Your task to perform on an android device: install app "Indeed Job Search" Image 0: 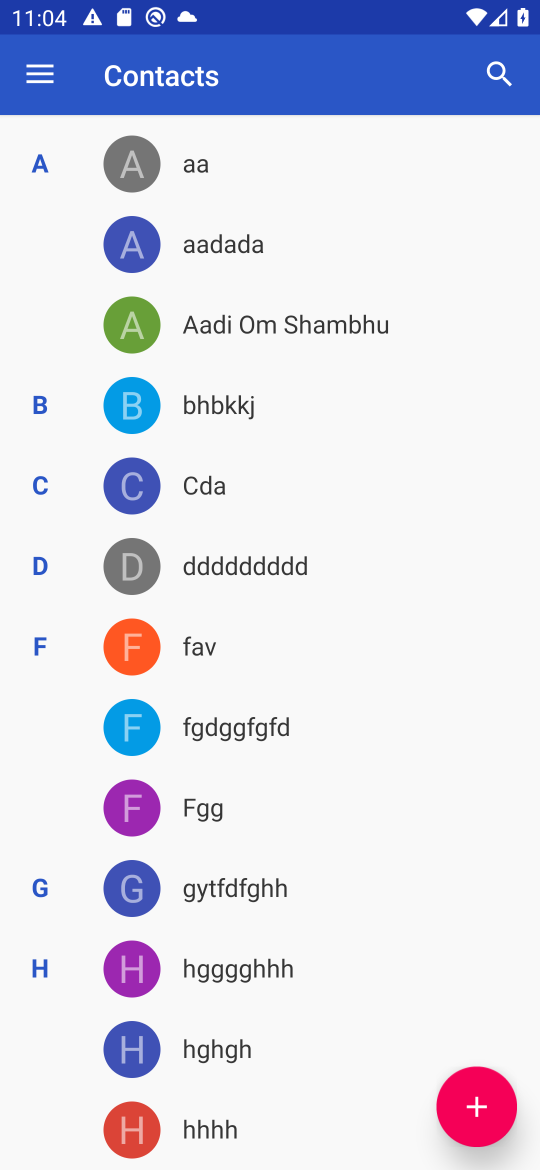
Step 0: press home button
Your task to perform on an android device: install app "Indeed Job Search" Image 1: 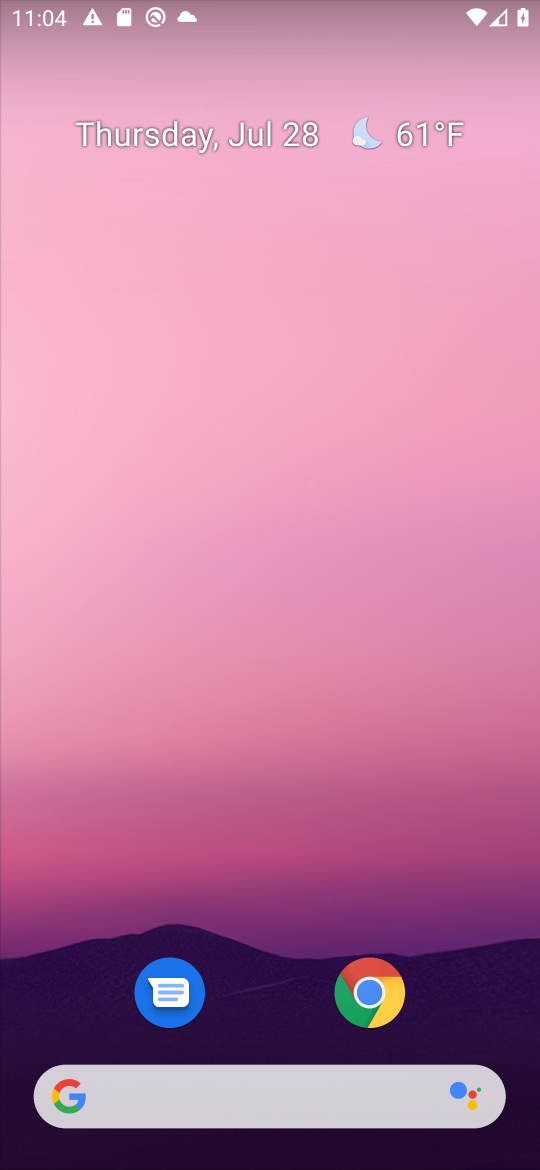
Step 1: drag from (255, 1101) to (285, 284)
Your task to perform on an android device: install app "Indeed Job Search" Image 2: 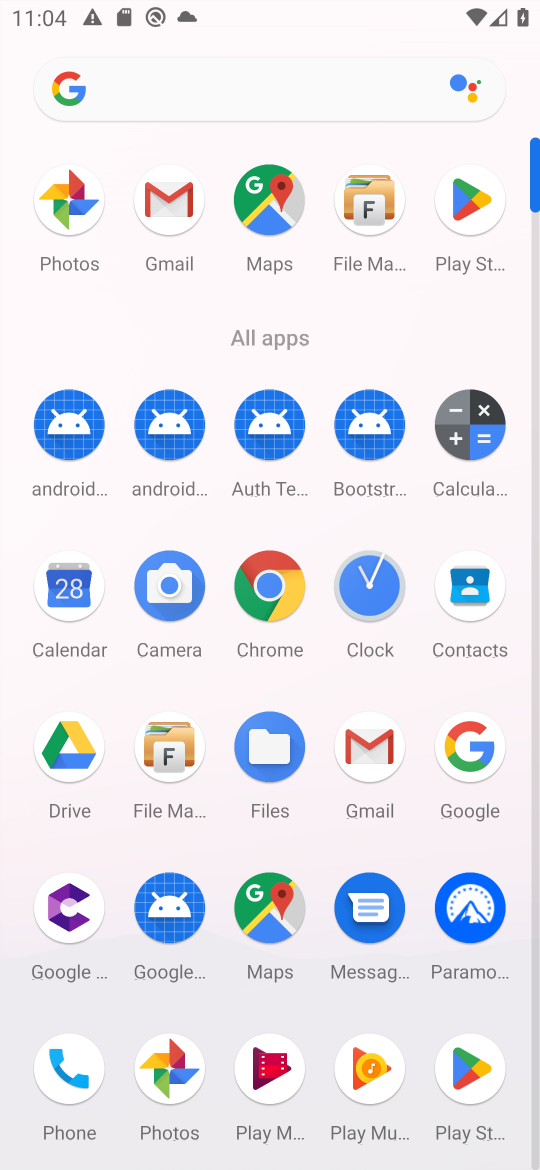
Step 2: click (461, 209)
Your task to perform on an android device: install app "Indeed Job Search" Image 3: 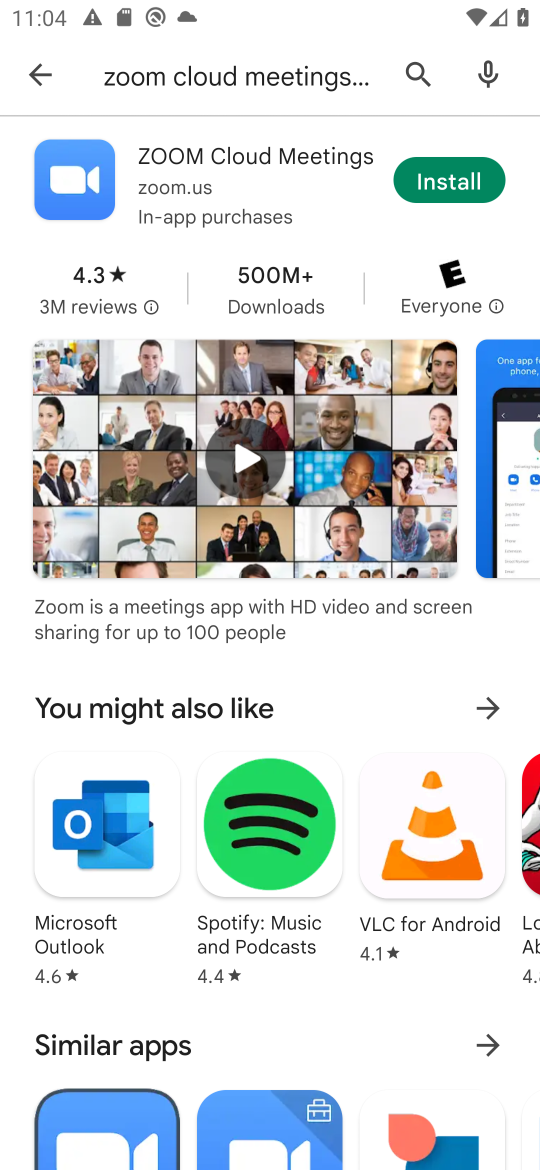
Step 3: click (415, 78)
Your task to perform on an android device: install app "Indeed Job Search" Image 4: 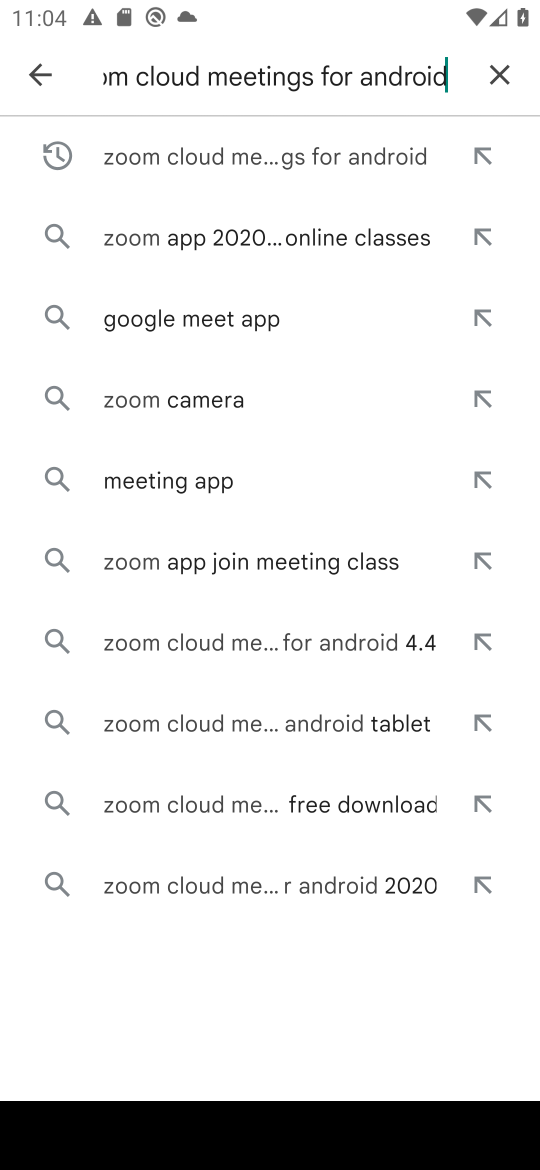
Step 4: click (503, 75)
Your task to perform on an android device: install app "Indeed Job Search" Image 5: 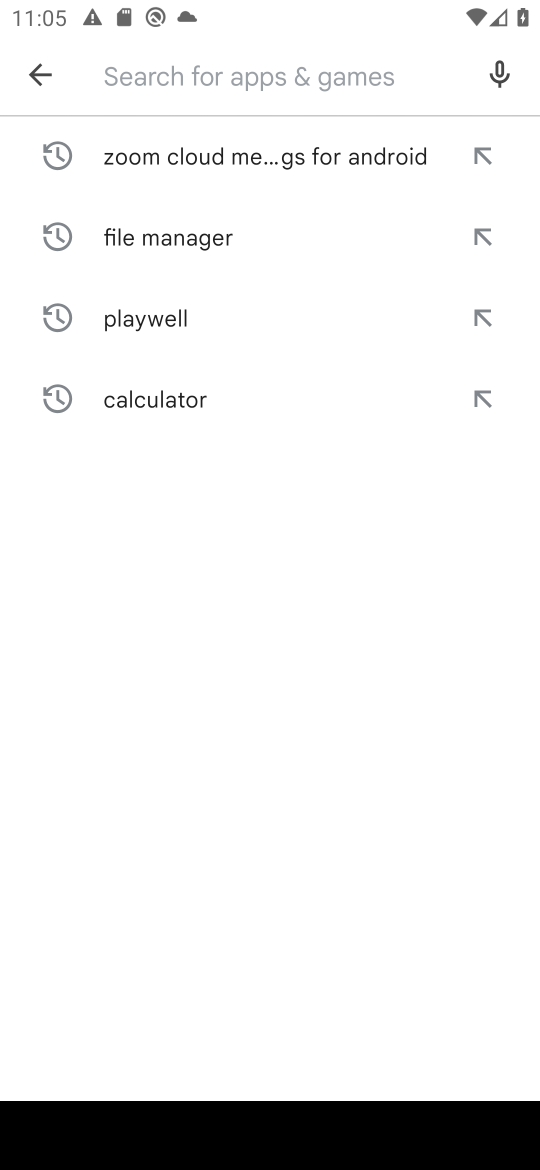
Step 5: type "Indeed Job Search"
Your task to perform on an android device: install app "Indeed Job Search" Image 6: 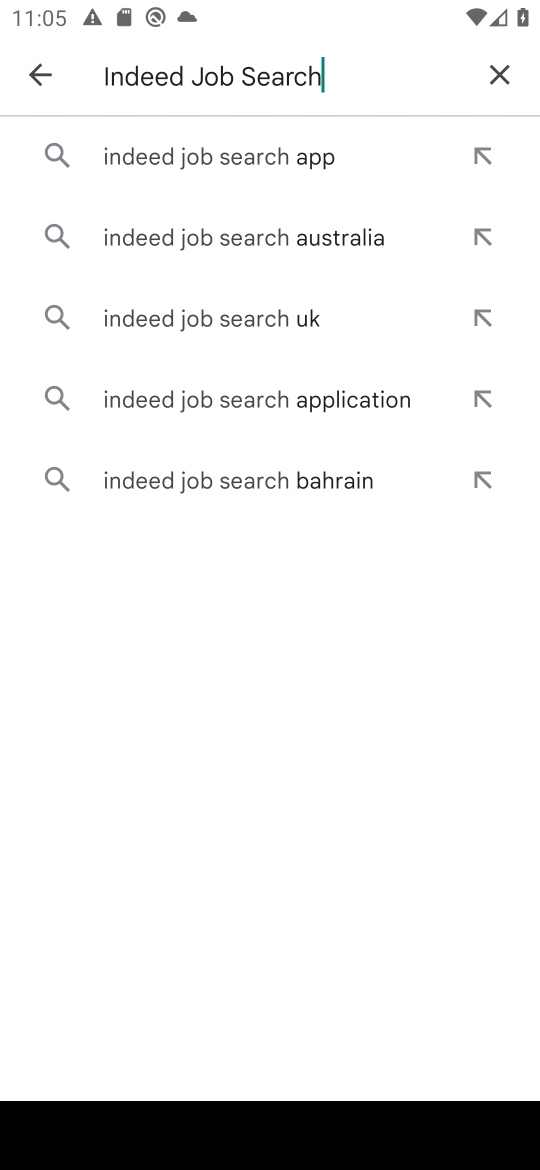
Step 6: click (274, 148)
Your task to perform on an android device: install app "Indeed Job Search" Image 7: 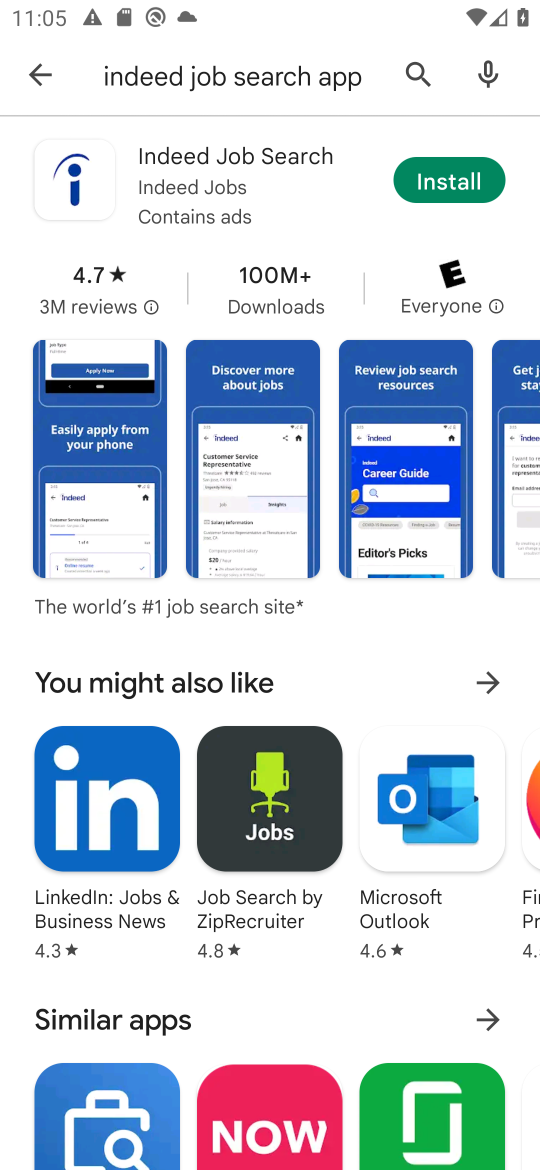
Step 7: click (447, 190)
Your task to perform on an android device: install app "Indeed Job Search" Image 8: 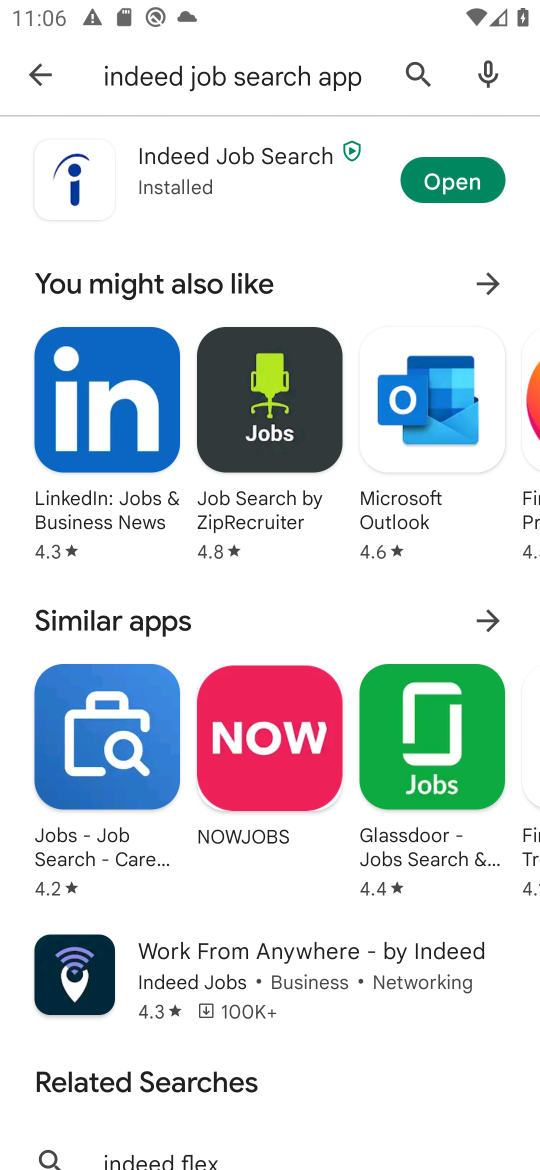
Step 8: task complete